Your task to perform on an android device: Go to notification settings Image 0: 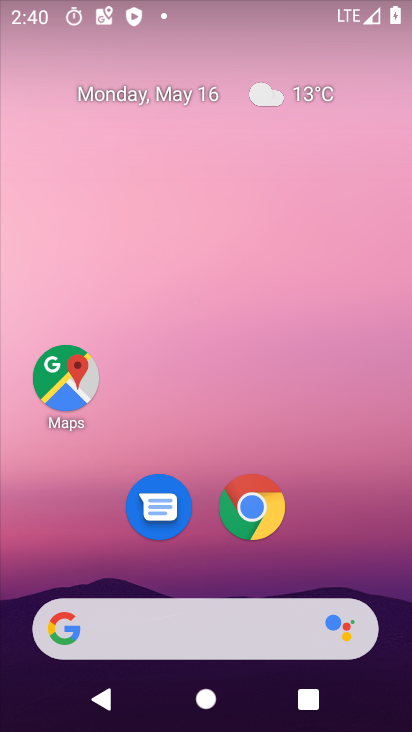
Step 0: drag from (341, 535) to (342, 173)
Your task to perform on an android device: Go to notification settings Image 1: 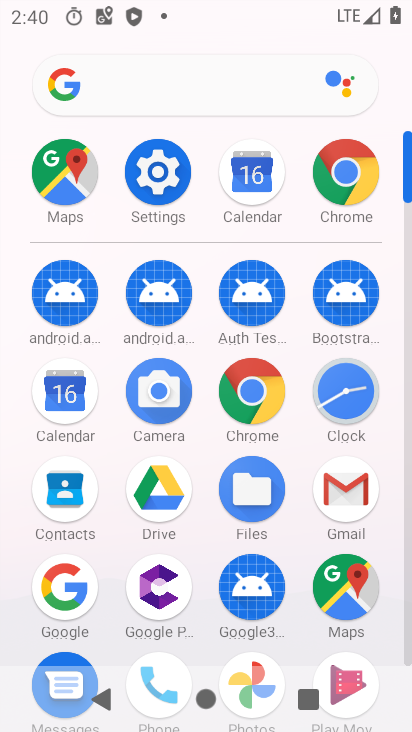
Step 1: click (173, 168)
Your task to perform on an android device: Go to notification settings Image 2: 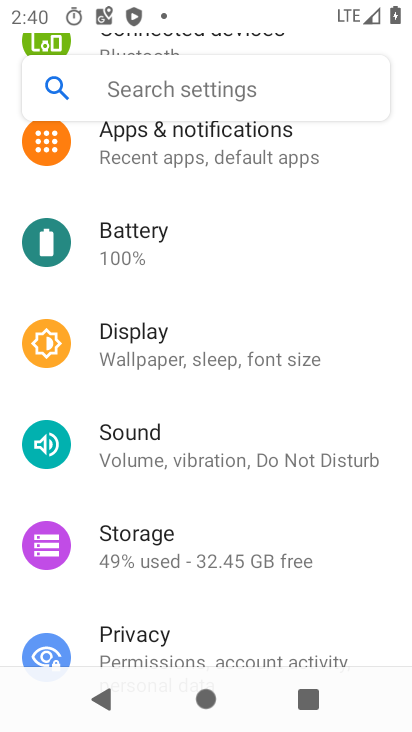
Step 2: drag from (380, 616) to (358, 386)
Your task to perform on an android device: Go to notification settings Image 3: 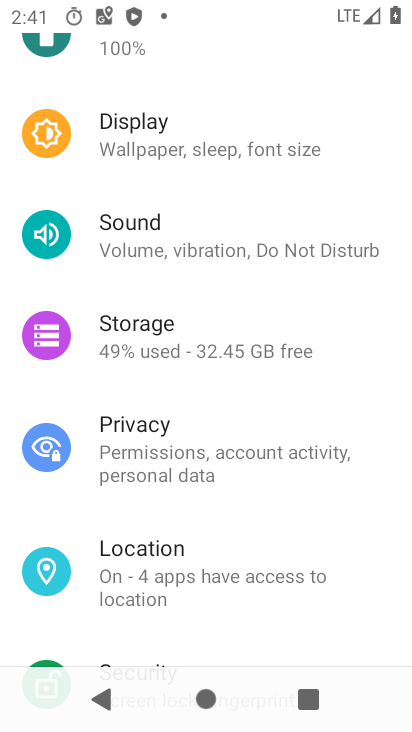
Step 3: drag from (352, 648) to (344, 469)
Your task to perform on an android device: Go to notification settings Image 4: 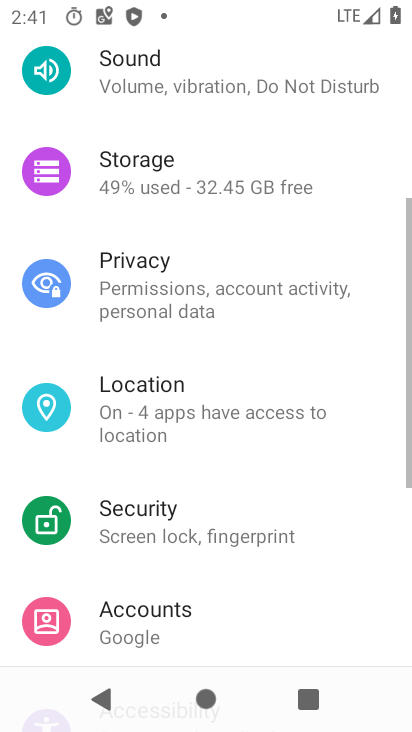
Step 4: drag from (347, 642) to (352, 488)
Your task to perform on an android device: Go to notification settings Image 5: 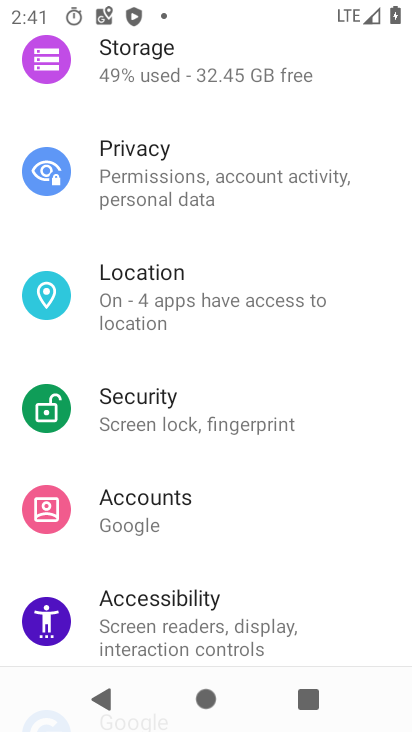
Step 5: drag from (342, 647) to (356, 503)
Your task to perform on an android device: Go to notification settings Image 6: 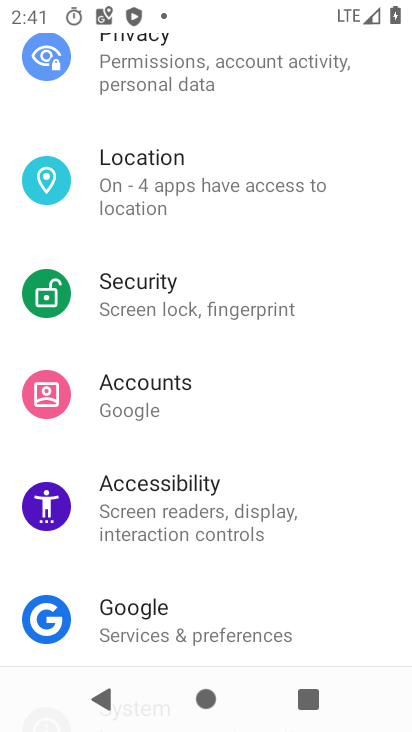
Step 6: drag from (381, 619) to (377, 492)
Your task to perform on an android device: Go to notification settings Image 7: 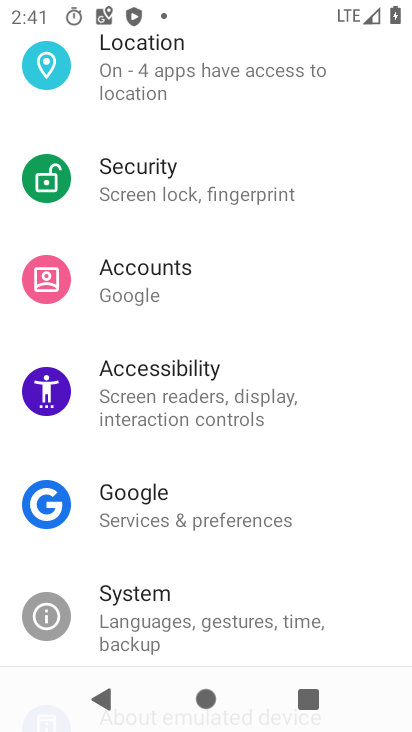
Step 7: drag from (351, 633) to (351, 482)
Your task to perform on an android device: Go to notification settings Image 8: 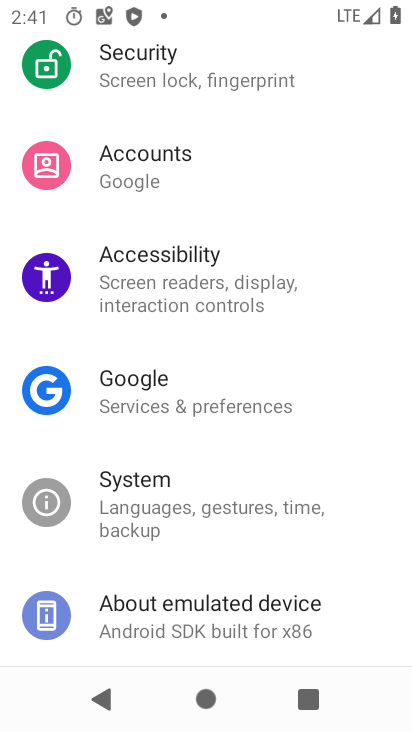
Step 8: drag from (347, 638) to (349, 475)
Your task to perform on an android device: Go to notification settings Image 9: 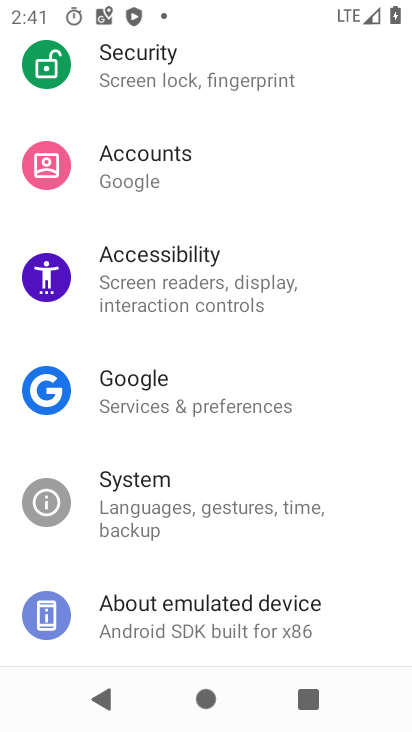
Step 9: drag from (362, 320) to (358, 468)
Your task to perform on an android device: Go to notification settings Image 10: 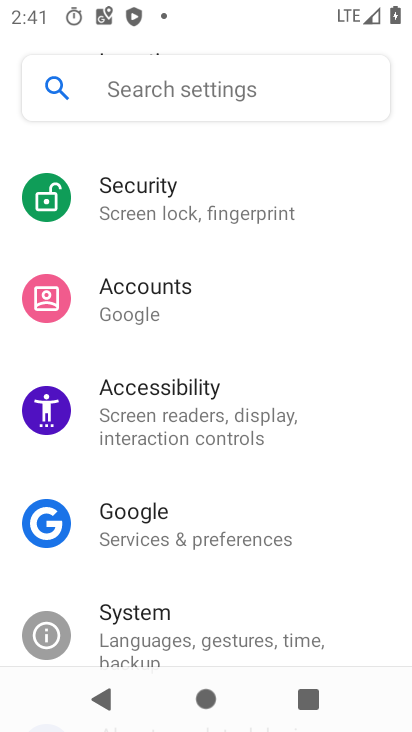
Step 10: drag from (357, 289) to (349, 431)
Your task to perform on an android device: Go to notification settings Image 11: 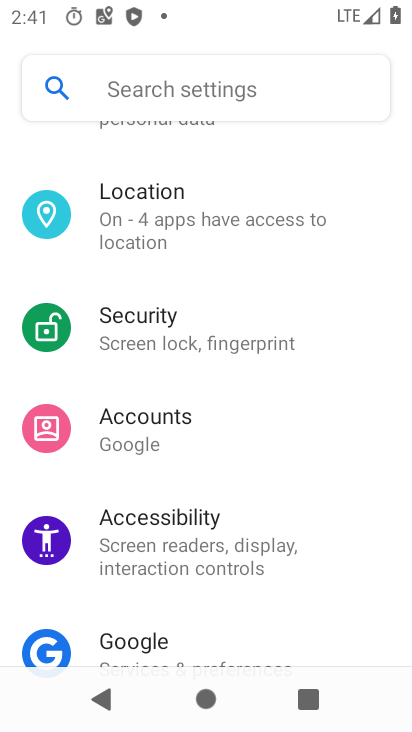
Step 11: drag from (349, 279) to (342, 428)
Your task to perform on an android device: Go to notification settings Image 12: 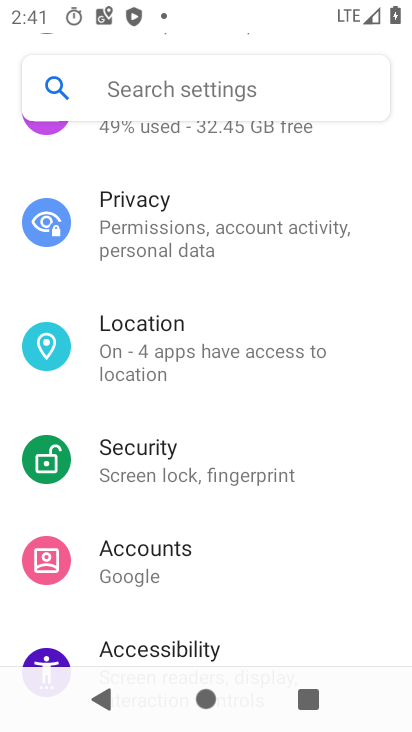
Step 12: drag from (374, 190) to (370, 354)
Your task to perform on an android device: Go to notification settings Image 13: 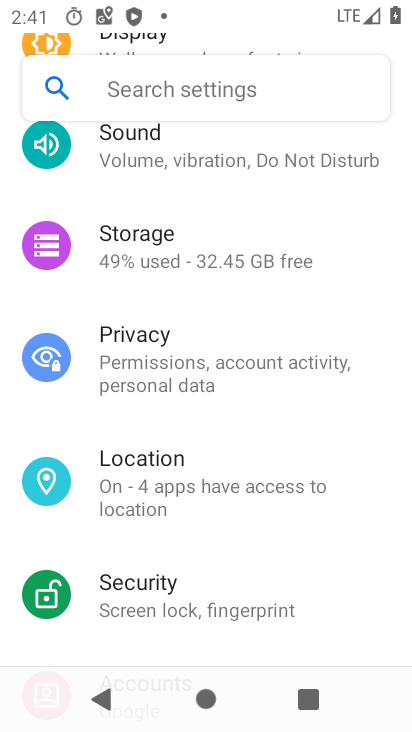
Step 13: drag from (368, 222) to (363, 421)
Your task to perform on an android device: Go to notification settings Image 14: 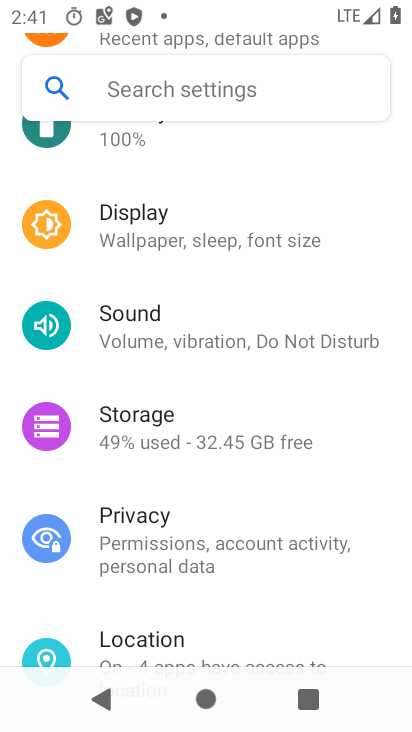
Step 14: drag from (340, 208) to (331, 389)
Your task to perform on an android device: Go to notification settings Image 15: 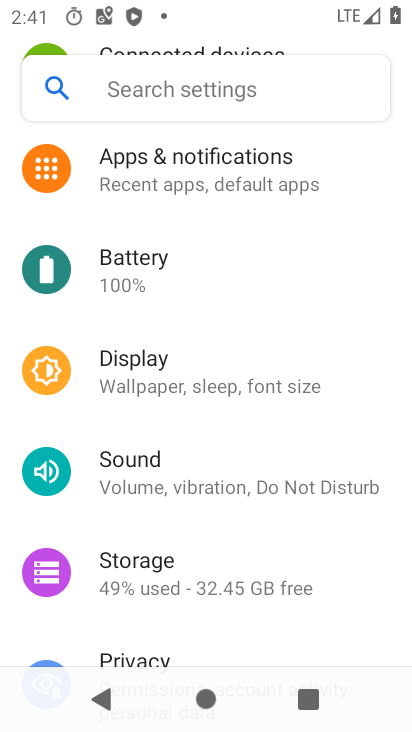
Step 15: click (266, 193)
Your task to perform on an android device: Go to notification settings Image 16: 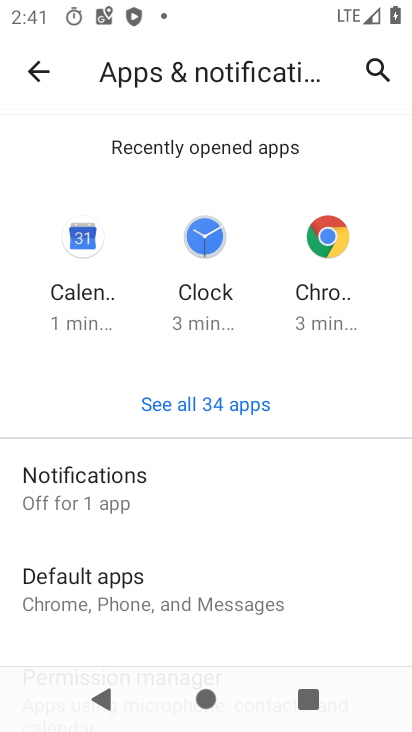
Step 16: click (100, 482)
Your task to perform on an android device: Go to notification settings Image 17: 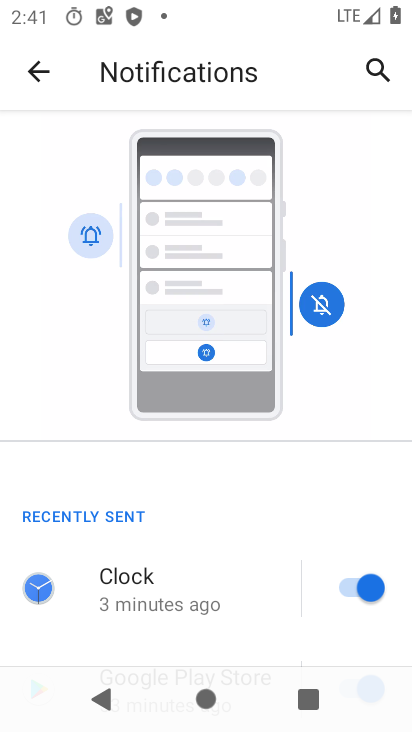
Step 17: task complete